Your task to perform on an android device: toggle priority inbox in the gmail app Image 0: 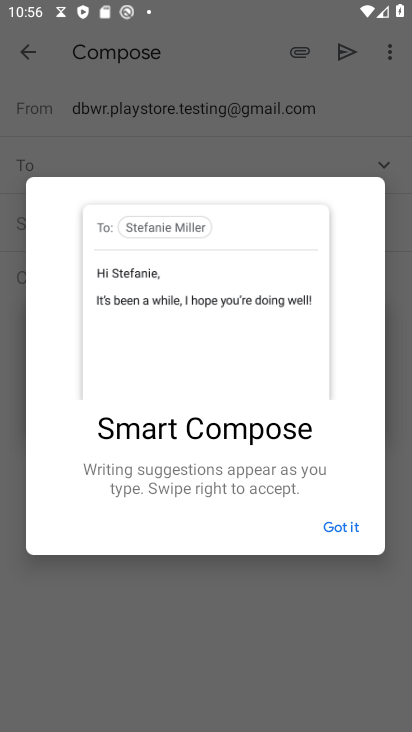
Step 0: press home button
Your task to perform on an android device: toggle priority inbox in the gmail app Image 1: 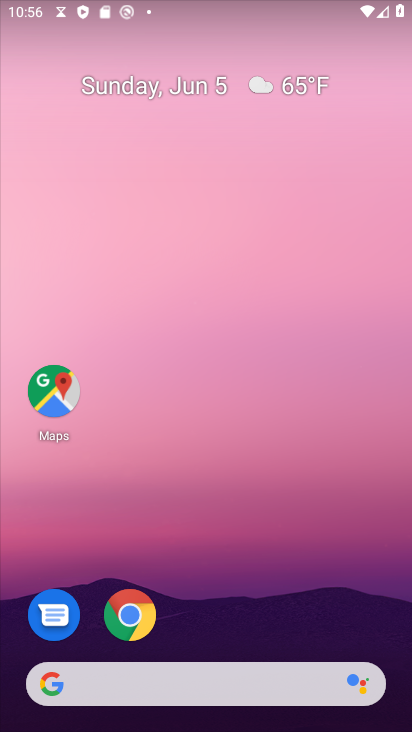
Step 1: drag from (277, 556) to (188, 84)
Your task to perform on an android device: toggle priority inbox in the gmail app Image 2: 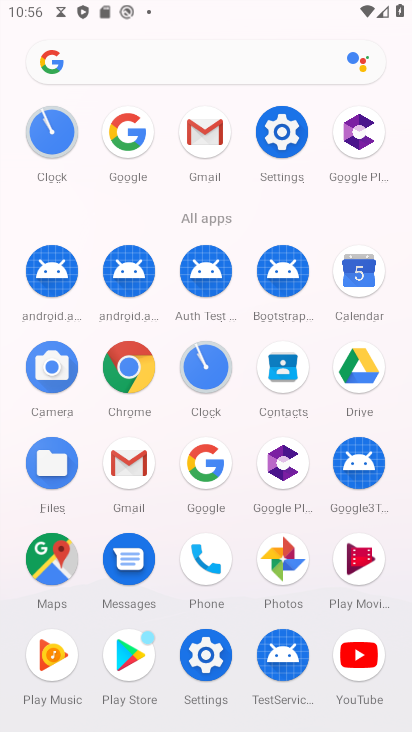
Step 2: click (127, 462)
Your task to perform on an android device: toggle priority inbox in the gmail app Image 3: 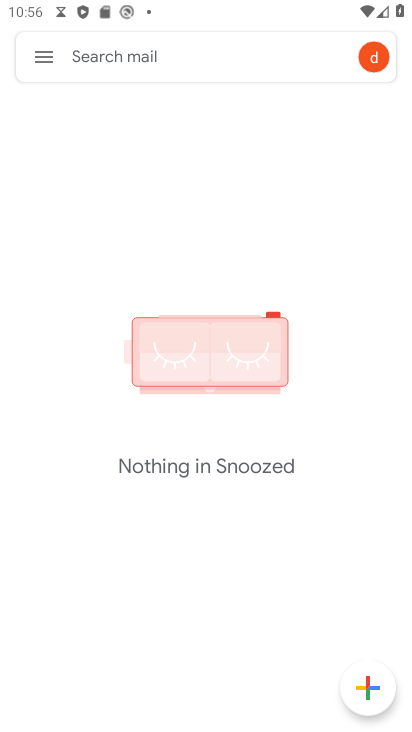
Step 3: click (45, 57)
Your task to perform on an android device: toggle priority inbox in the gmail app Image 4: 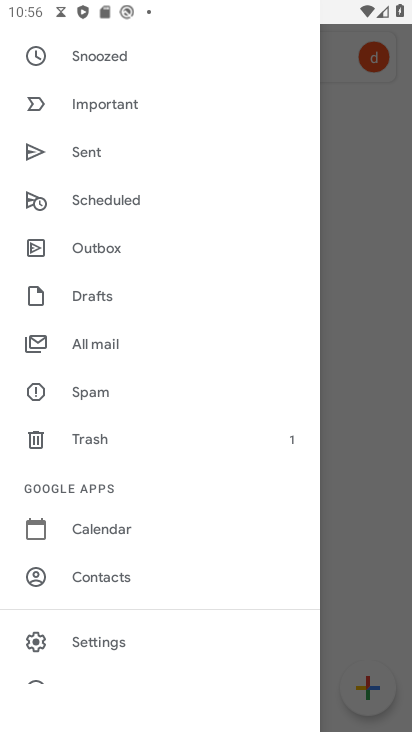
Step 4: drag from (121, 549) to (161, 452)
Your task to perform on an android device: toggle priority inbox in the gmail app Image 5: 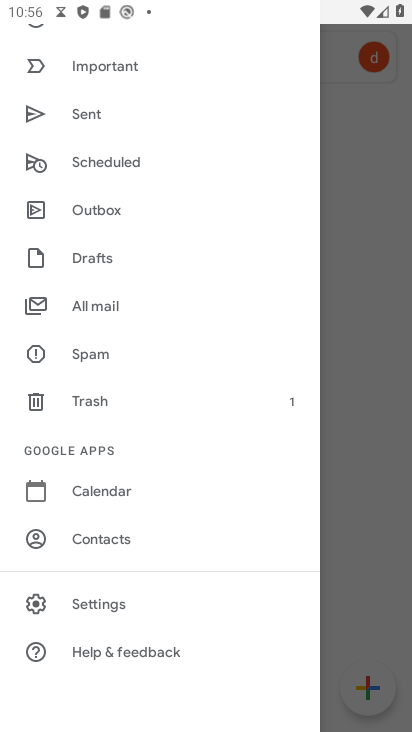
Step 5: click (97, 599)
Your task to perform on an android device: toggle priority inbox in the gmail app Image 6: 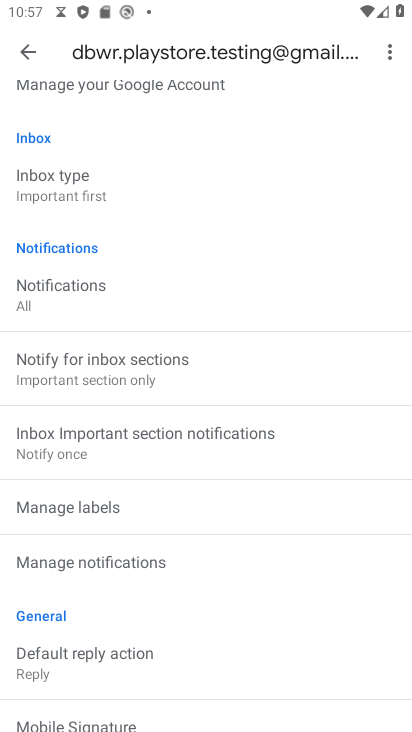
Step 6: click (30, 194)
Your task to perform on an android device: toggle priority inbox in the gmail app Image 7: 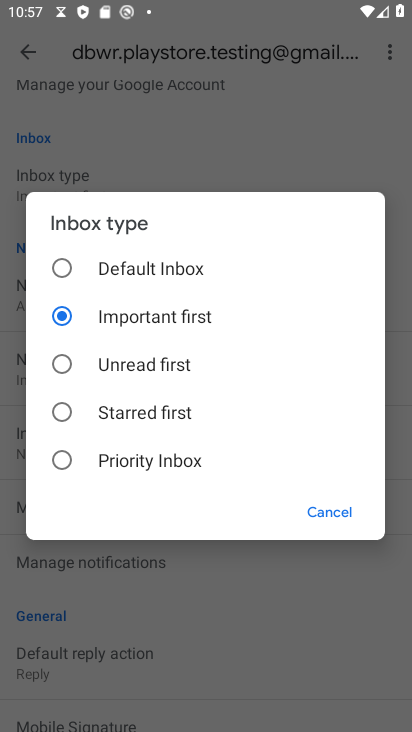
Step 7: click (64, 468)
Your task to perform on an android device: toggle priority inbox in the gmail app Image 8: 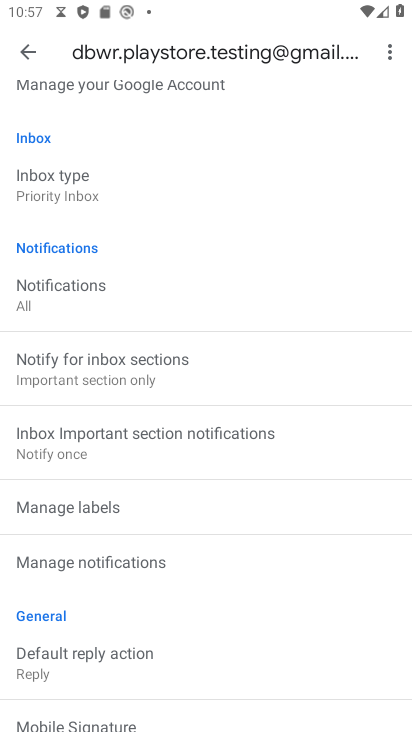
Step 8: task complete